Your task to perform on an android device: Open battery settings Image 0: 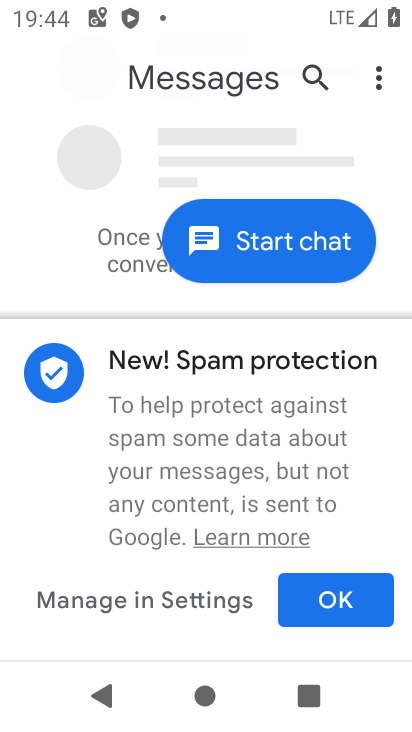
Step 0: press home button
Your task to perform on an android device: Open battery settings Image 1: 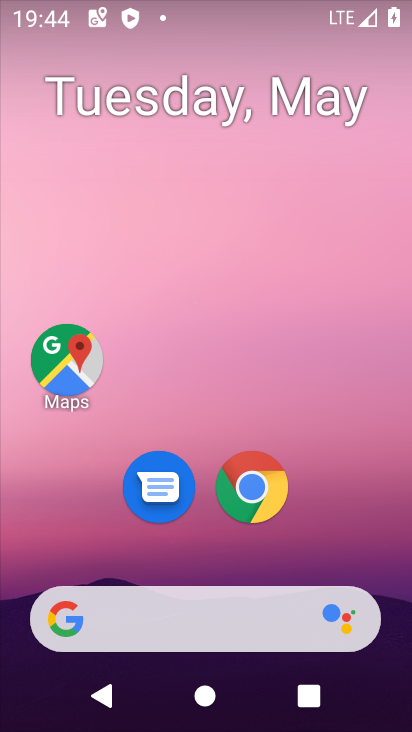
Step 1: drag from (310, 538) to (201, 103)
Your task to perform on an android device: Open battery settings Image 2: 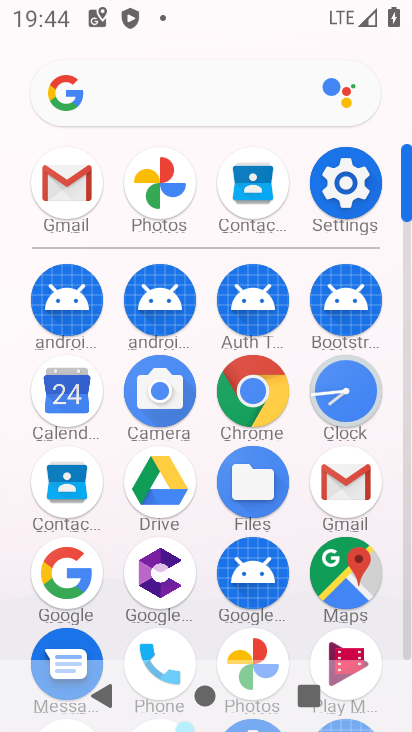
Step 2: click (330, 175)
Your task to perform on an android device: Open battery settings Image 3: 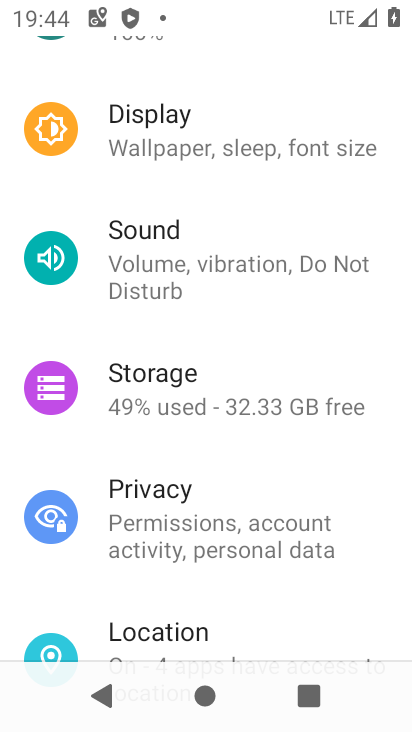
Step 3: drag from (200, 180) to (310, 728)
Your task to perform on an android device: Open battery settings Image 4: 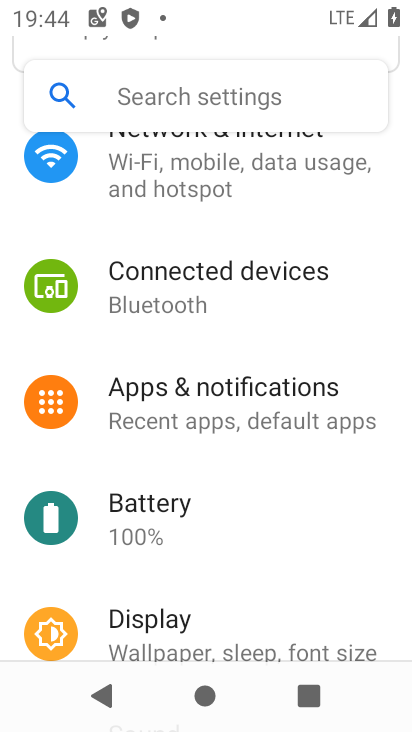
Step 4: click (139, 516)
Your task to perform on an android device: Open battery settings Image 5: 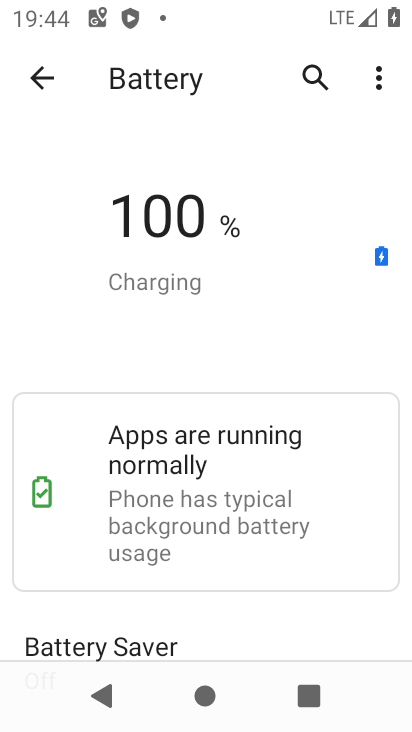
Step 5: task complete